Your task to perform on an android device: What's the weather going to be this weekend? Image 0: 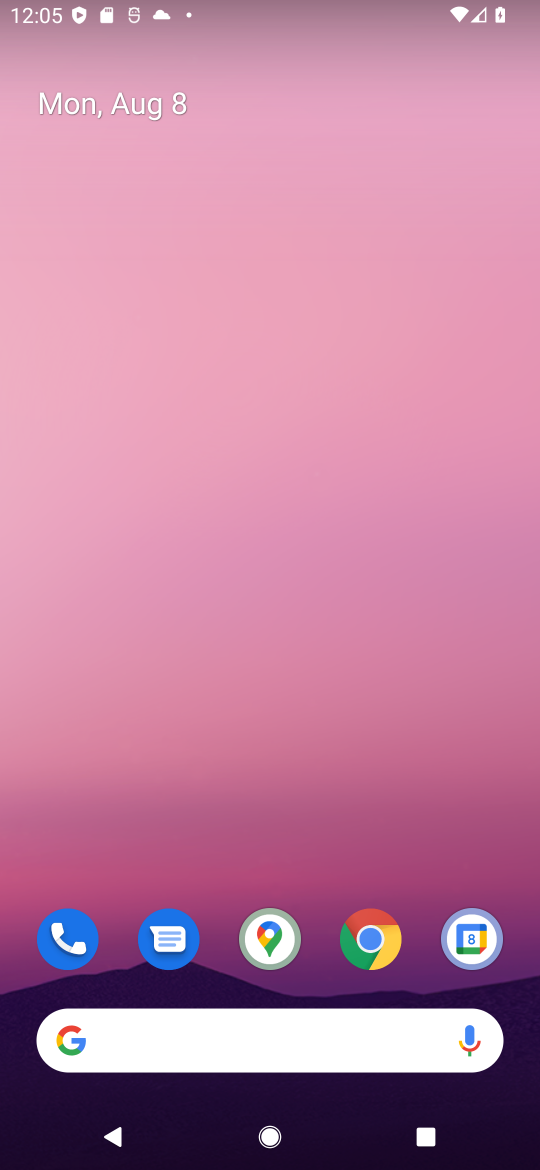
Step 0: drag from (179, 1032) to (316, 442)
Your task to perform on an android device: What's the weather going to be this weekend? Image 1: 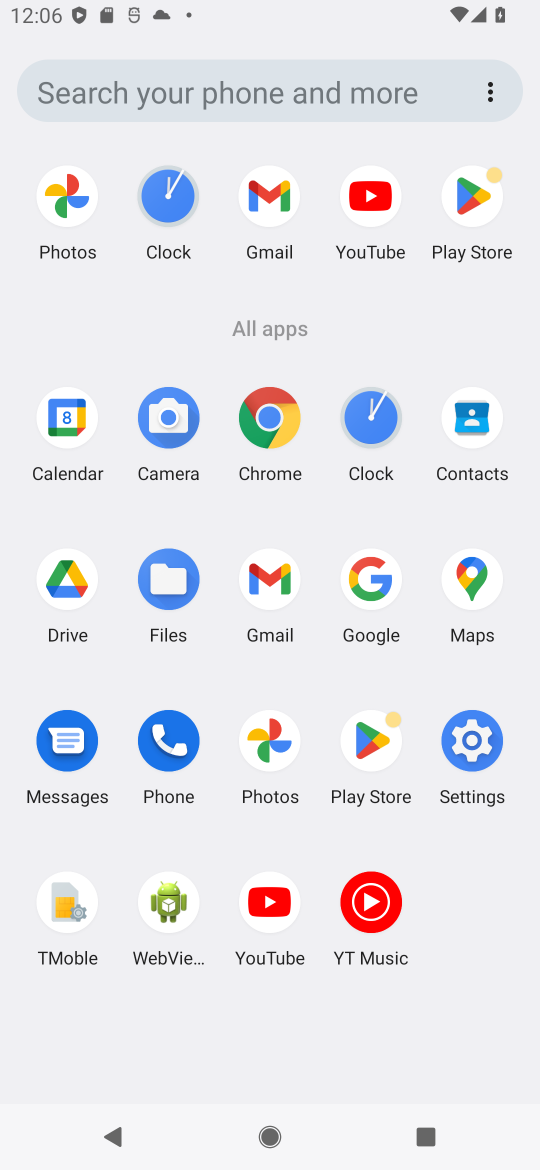
Step 1: click (369, 582)
Your task to perform on an android device: What's the weather going to be this weekend? Image 2: 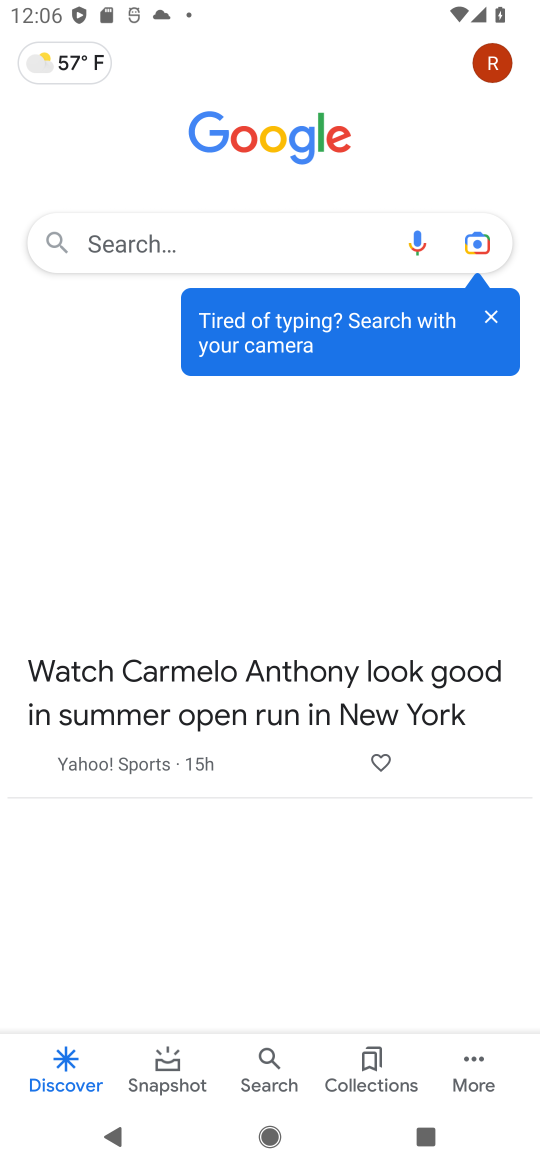
Step 2: click (168, 234)
Your task to perform on an android device: What's the weather going to be this weekend? Image 3: 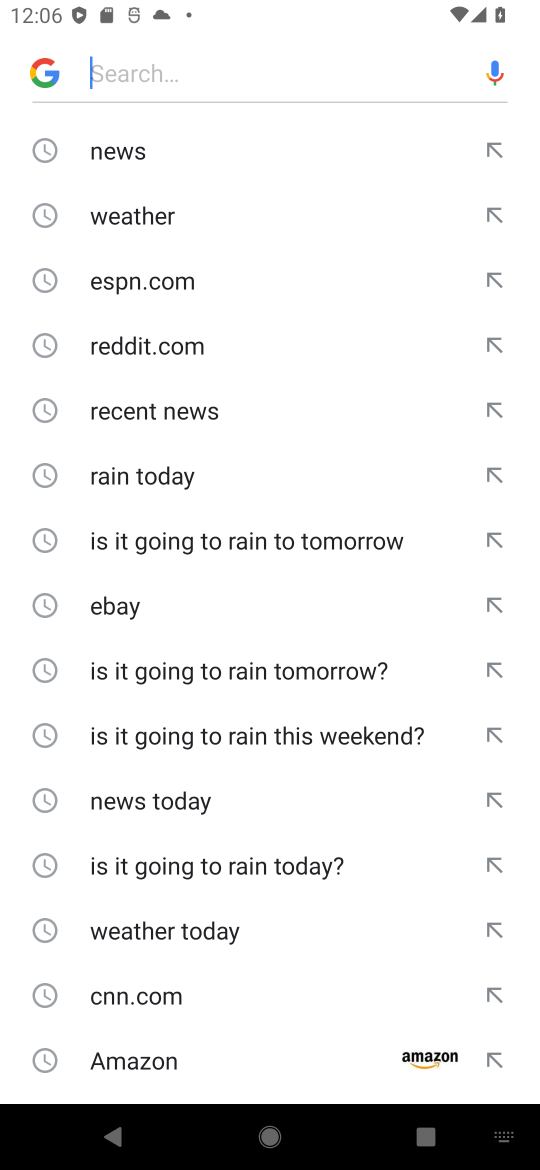
Step 3: type "What's the weather going to be this weekend?"
Your task to perform on an android device: What's the weather going to be this weekend? Image 4: 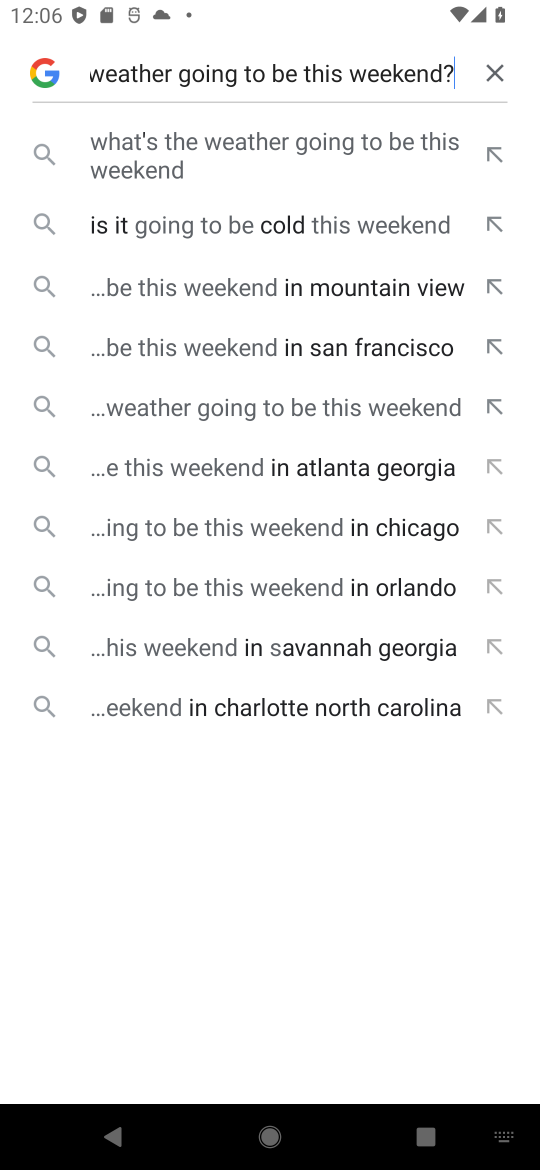
Step 4: click (352, 142)
Your task to perform on an android device: What's the weather going to be this weekend? Image 5: 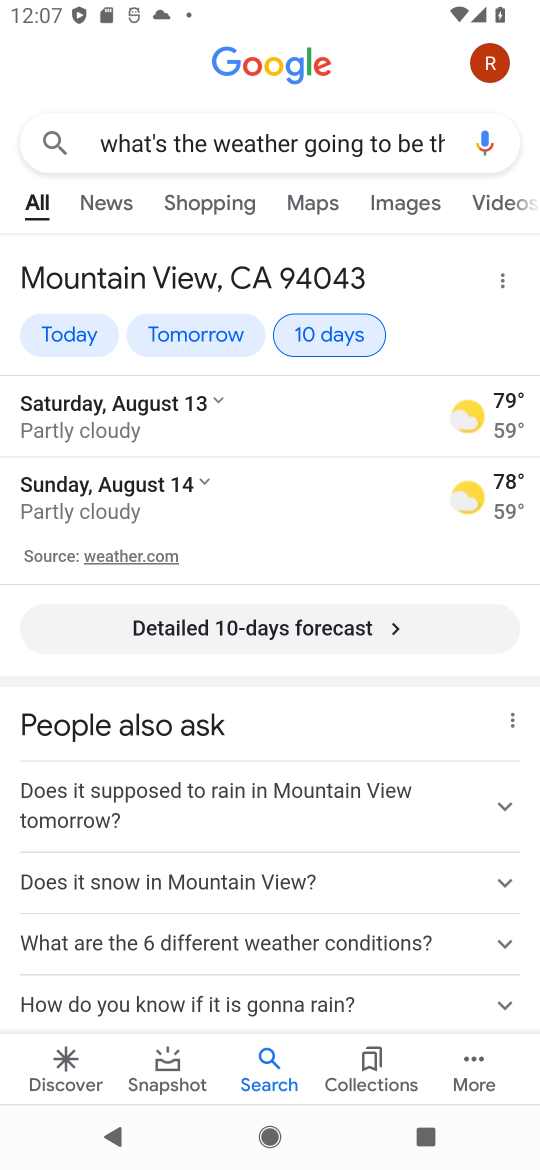
Step 5: task complete